Your task to perform on an android device: Open the map Image 0: 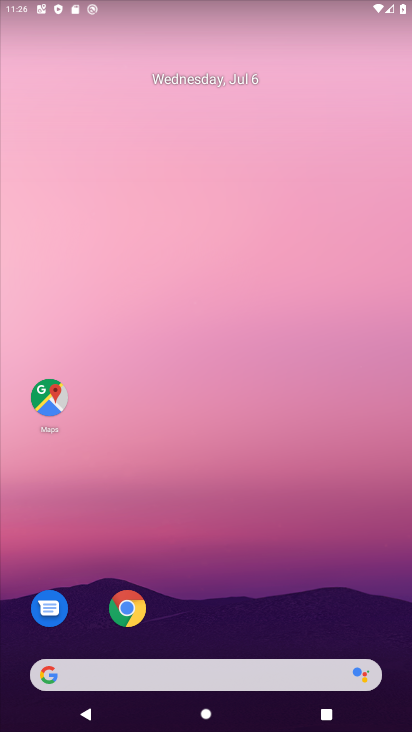
Step 0: press home button
Your task to perform on an android device: Open the map Image 1: 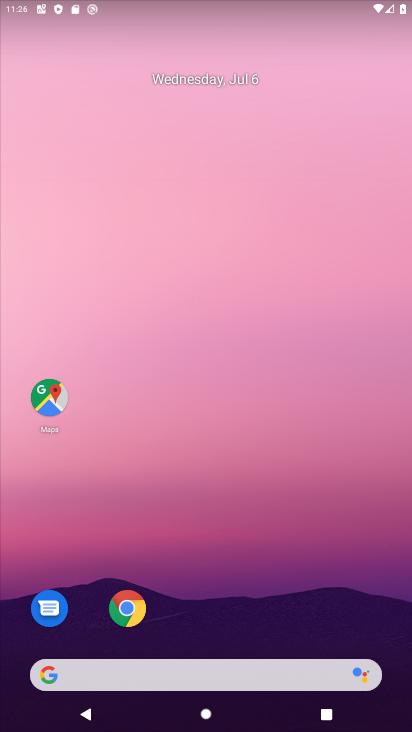
Step 1: click (37, 399)
Your task to perform on an android device: Open the map Image 2: 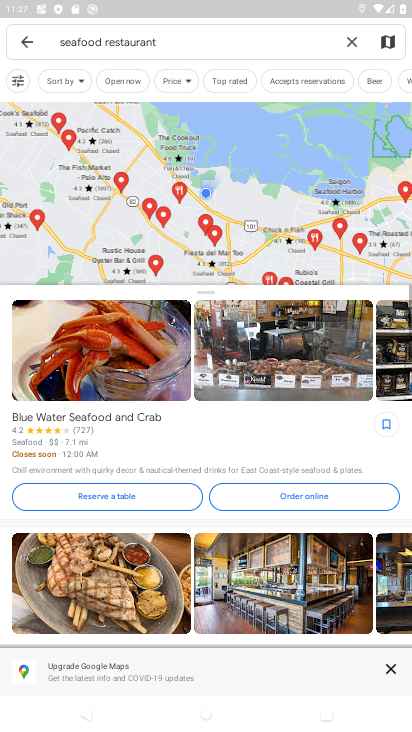
Step 2: task complete